Your task to perform on an android device: toggle translation in the chrome app Image 0: 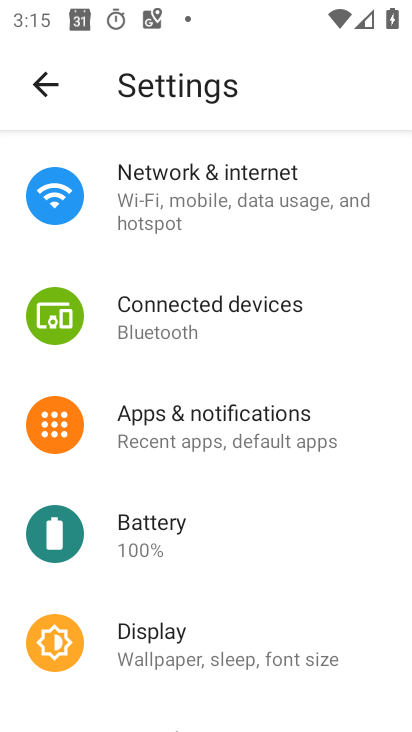
Step 0: press home button
Your task to perform on an android device: toggle translation in the chrome app Image 1: 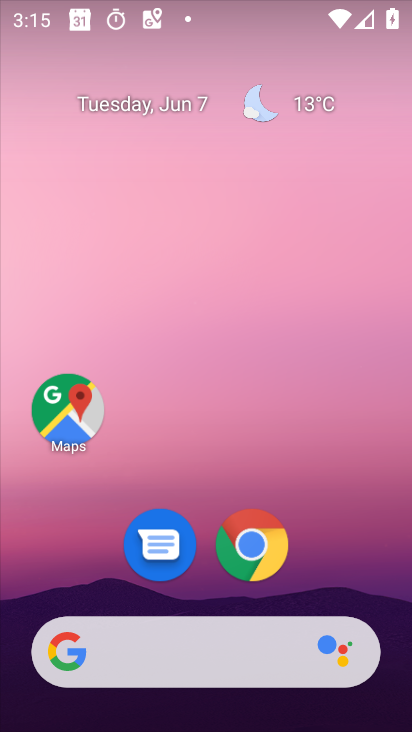
Step 1: click (255, 555)
Your task to perform on an android device: toggle translation in the chrome app Image 2: 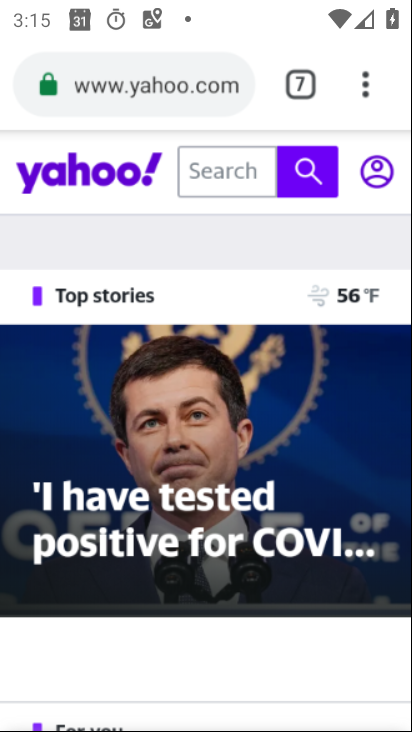
Step 2: click (357, 81)
Your task to perform on an android device: toggle translation in the chrome app Image 3: 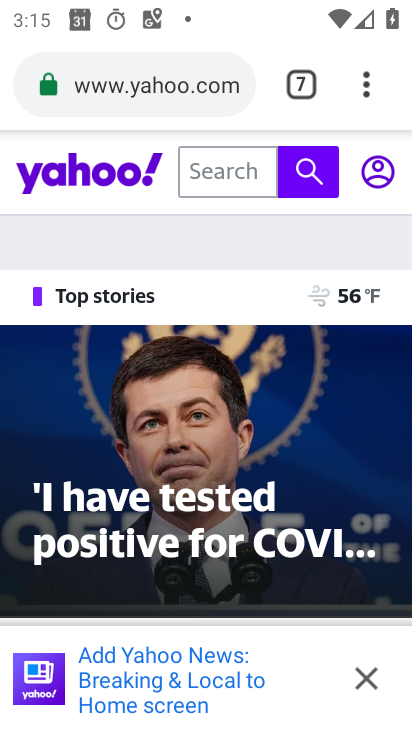
Step 3: click (365, 72)
Your task to perform on an android device: toggle translation in the chrome app Image 4: 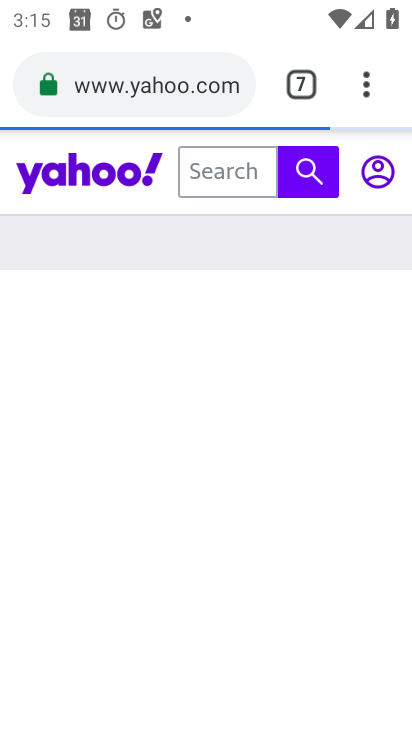
Step 4: click (363, 75)
Your task to perform on an android device: toggle translation in the chrome app Image 5: 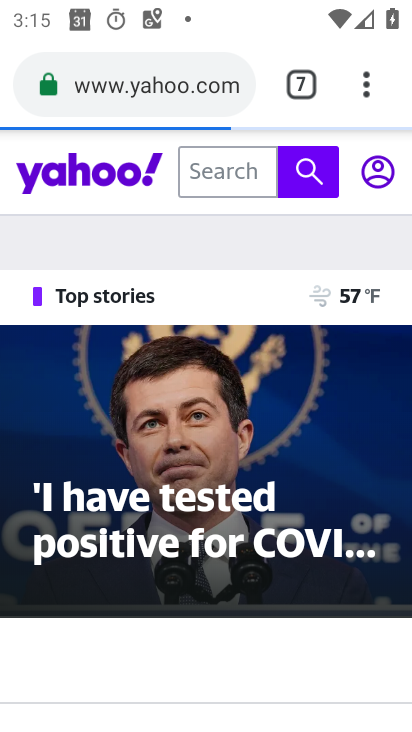
Step 5: click (370, 80)
Your task to perform on an android device: toggle translation in the chrome app Image 6: 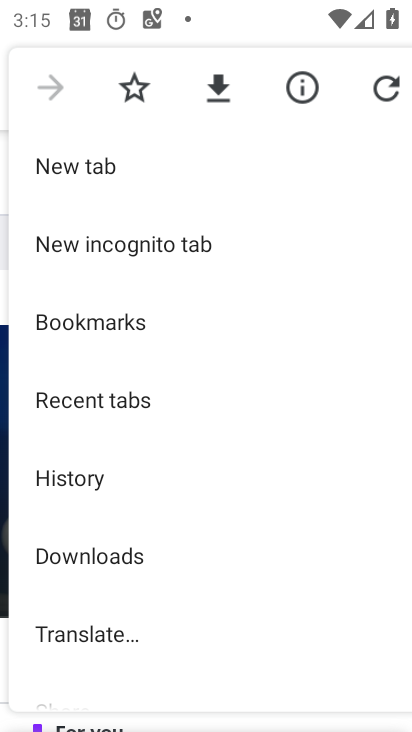
Step 6: drag from (275, 492) to (261, 4)
Your task to perform on an android device: toggle translation in the chrome app Image 7: 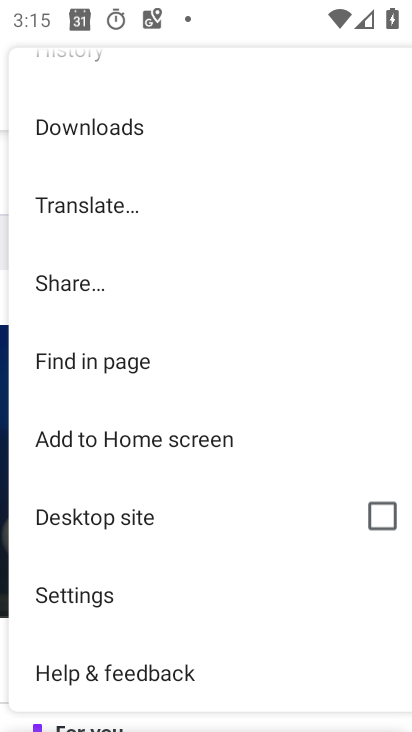
Step 7: click (171, 613)
Your task to perform on an android device: toggle translation in the chrome app Image 8: 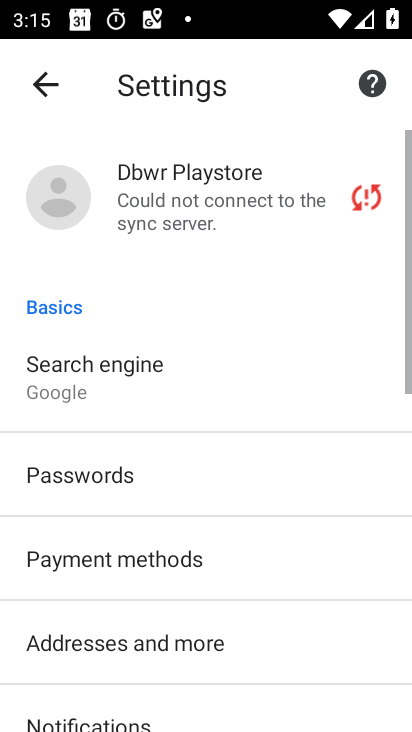
Step 8: drag from (245, 594) to (234, 47)
Your task to perform on an android device: toggle translation in the chrome app Image 9: 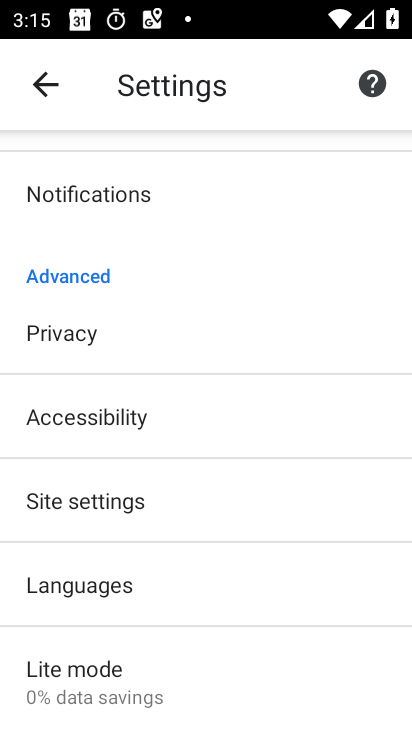
Step 9: click (172, 585)
Your task to perform on an android device: toggle translation in the chrome app Image 10: 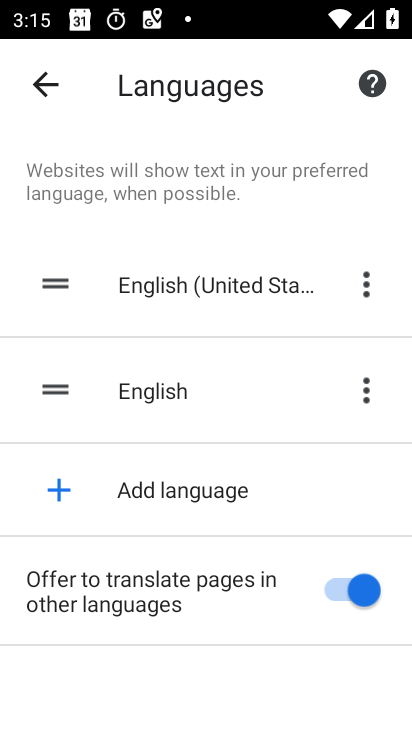
Step 10: click (348, 597)
Your task to perform on an android device: toggle translation in the chrome app Image 11: 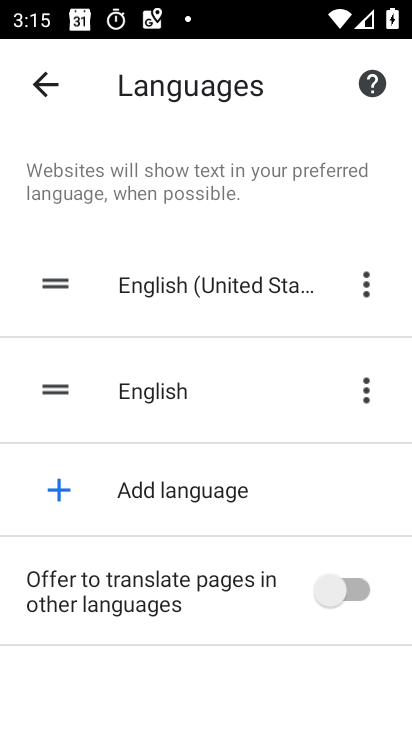
Step 11: task complete